Your task to perform on an android device: Check the weather Image 0: 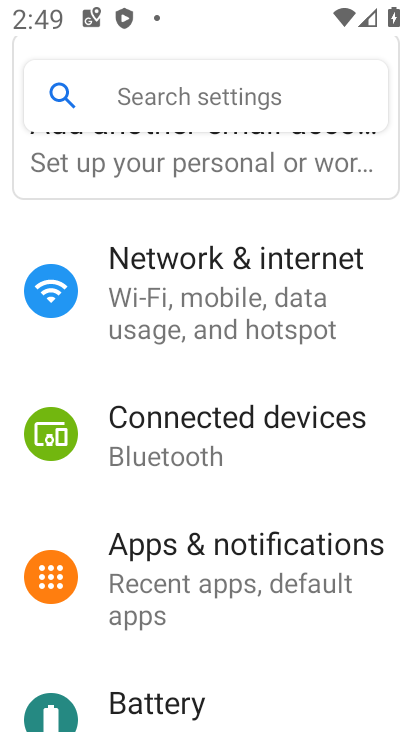
Step 0: press home button
Your task to perform on an android device: Check the weather Image 1: 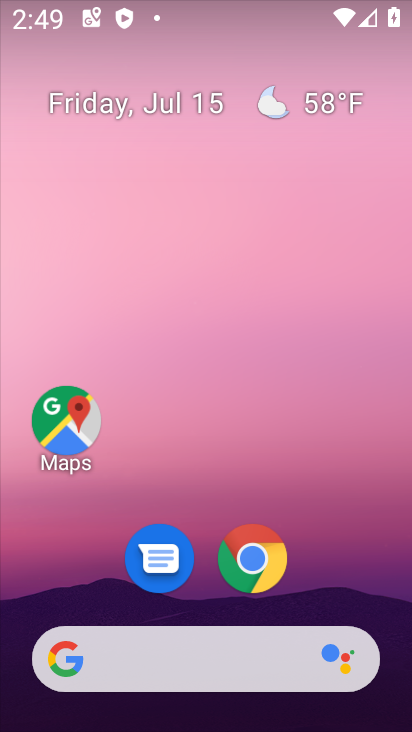
Step 1: click (262, 649)
Your task to perform on an android device: Check the weather Image 2: 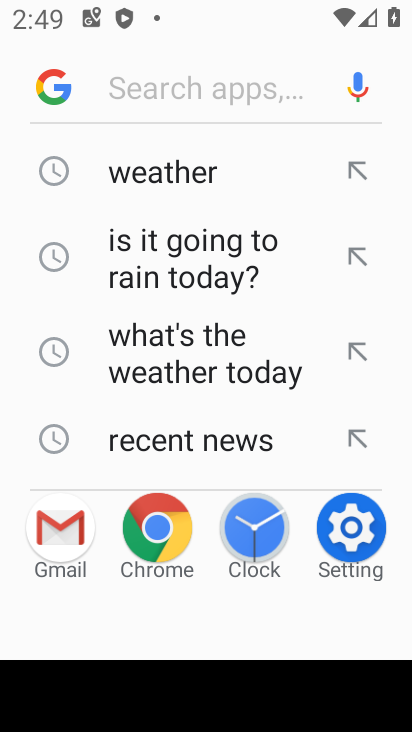
Step 2: click (194, 182)
Your task to perform on an android device: Check the weather Image 3: 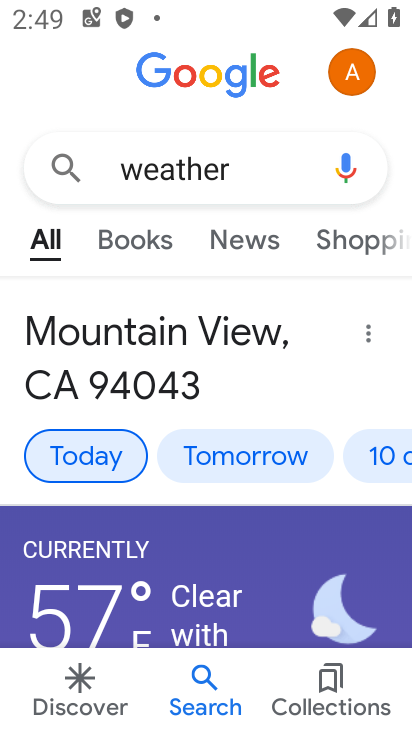
Step 3: task complete